Your task to perform on an android device: change the clock display to analog Image 0: 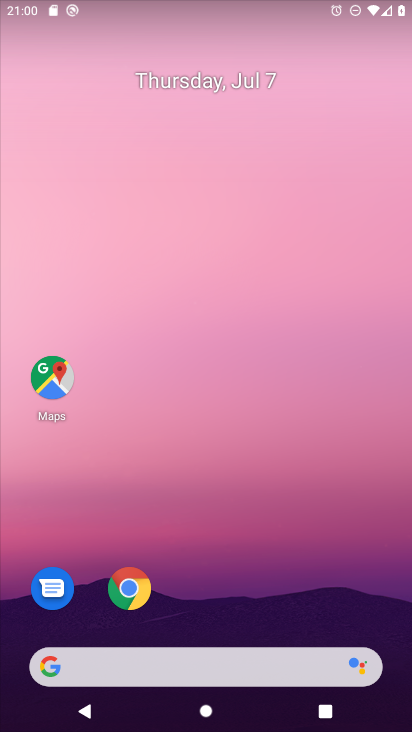
Step 0: drag from (208, 631) to (228, 261)
Your task to perform on an android device: change the clock display to analog Image 1: 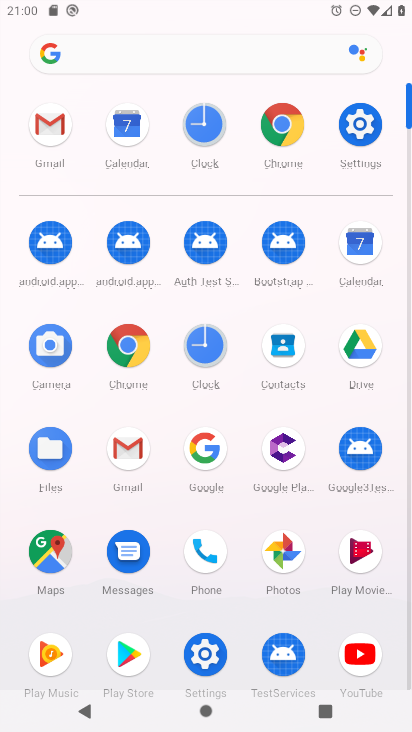
Step 1: click (204, 342)
Your task to perform on an android device: change the clock display to analog Image 2: 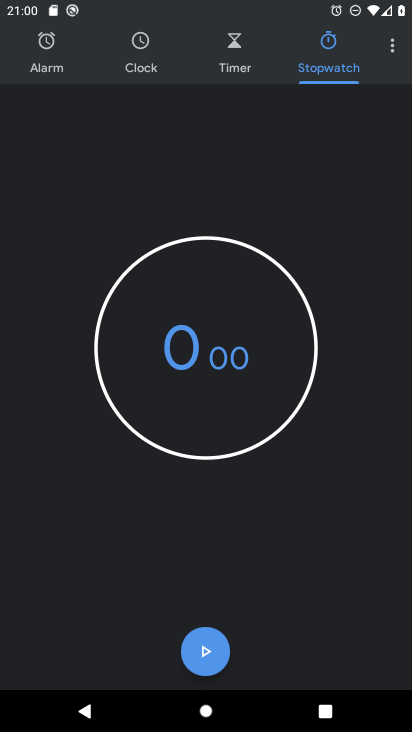
Step 2: click (398, 36)
Your task to perform on an android device: change the clock display to analog Image 3: 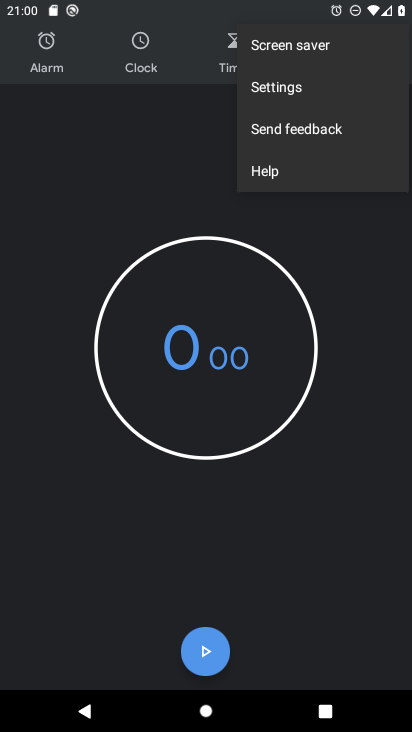
Step 3: click (287, 90)
Your task to perform on an android device: change the clock display to analog Image 4: 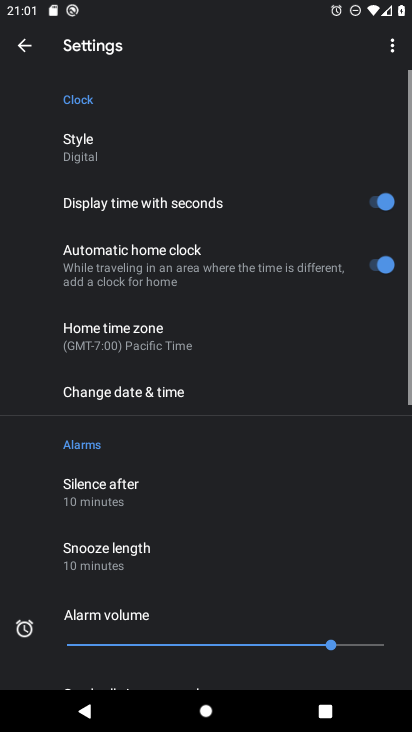
Step 4: click (133, 157)
Your task to perform on an android device: change the clock display to analog Image 5: 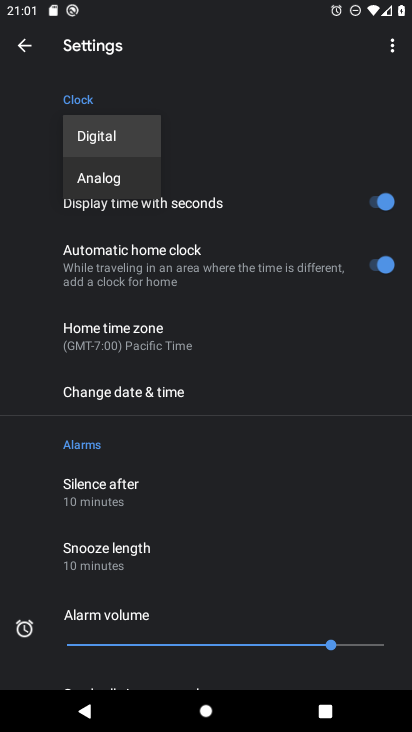
Step 5: click (129, 165)
Your task to perform on an android device: change the clock display to analog Image 6: 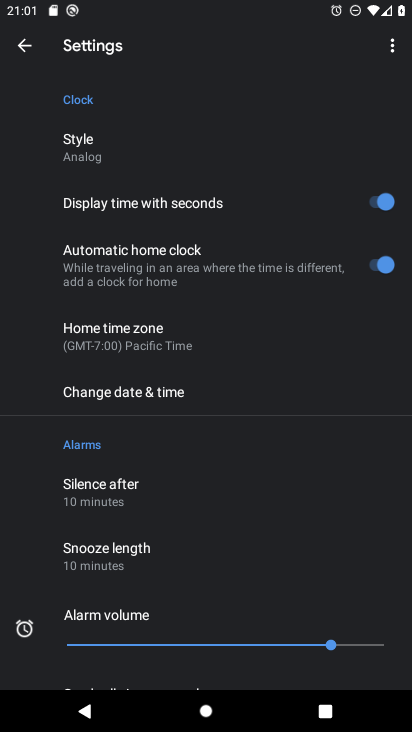
Step 6: task complete